Your task to perform on an android device: toggle translation in the chrome app Image 0: 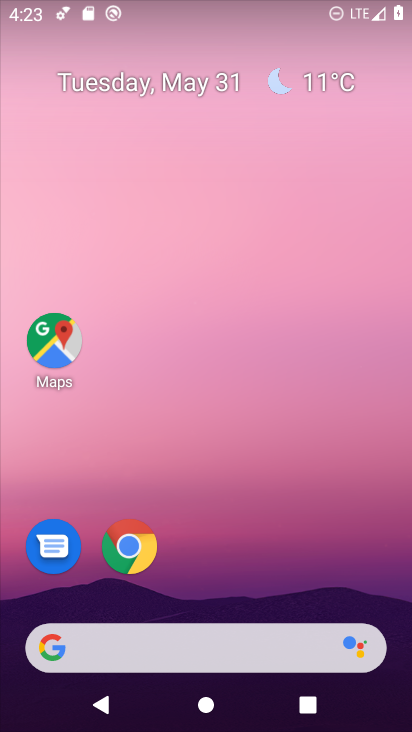
Step 0: click (130, 551)
Your task to perform on an android device: toggle translation in the chrome app Image 1: 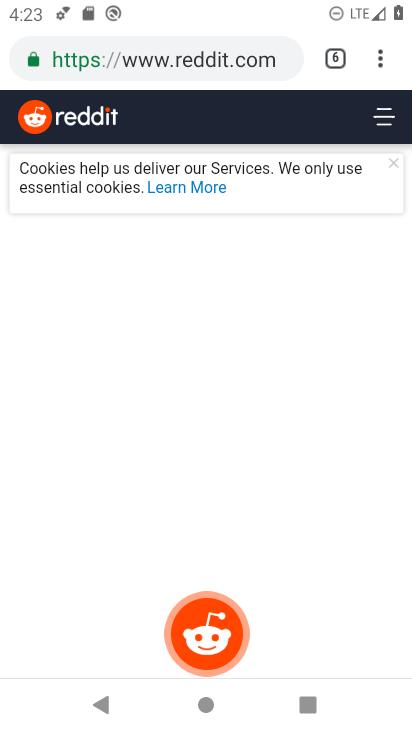
Step 1: click (378, 56)
Your task to perform on an android device: toggle translation in the chrome app Image 2: 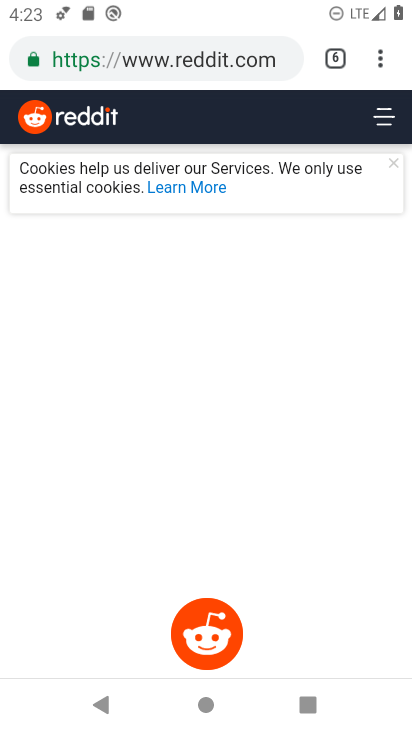
Step 2: click (378, 52)
Your task to perform on an android device: toggle translation in the chrome app Image 3: 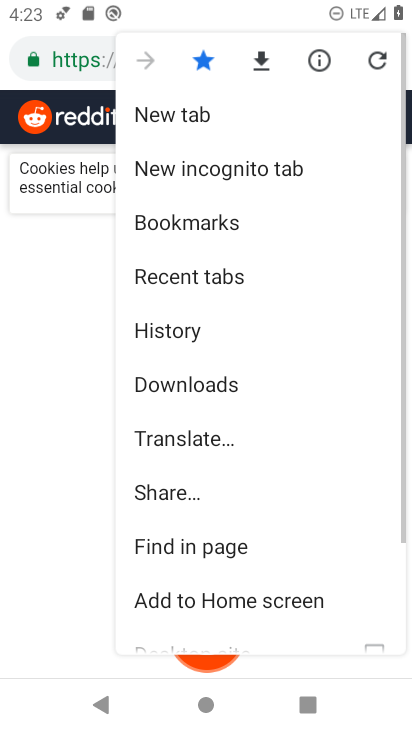
Step 3: drag from (304, 509) to (250, 33)
Your task to perform on an android device: toggle translation in the chrome app Image 4: 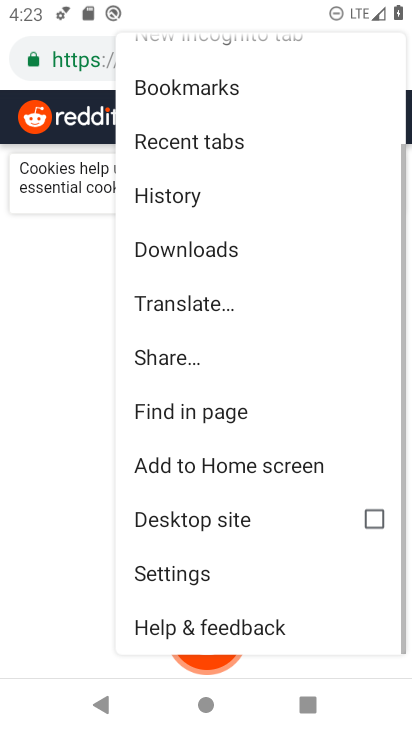
Step 4: click (218, 572)
Your task to perform on an android device: toggle translation in the chrome app Image 5: 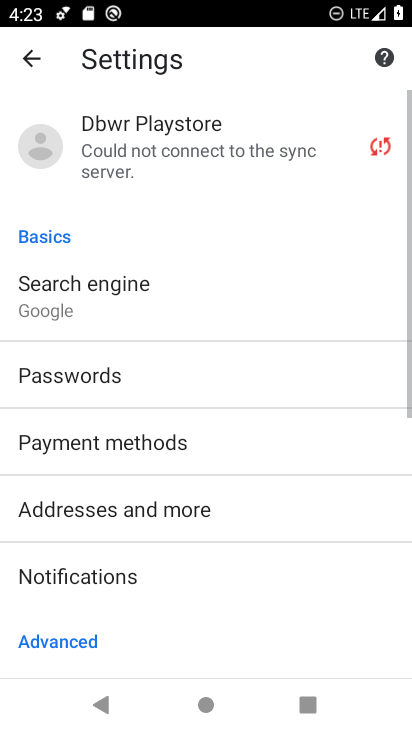
Step 5: drag from (177, 545) to (128, 4)
Your task to perform on an android device: toggle translation in the chrome app Image 6: 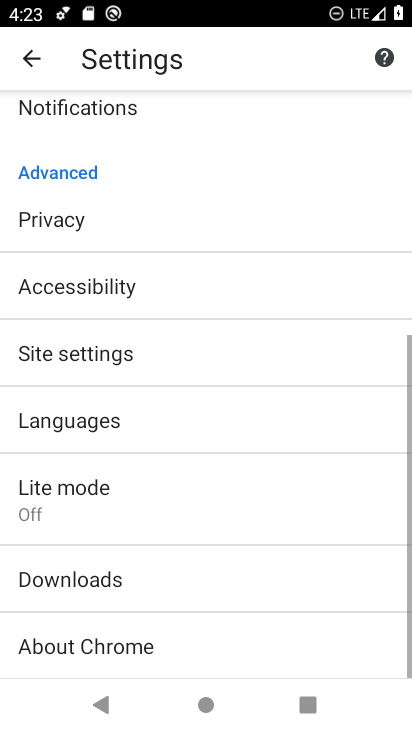
Step 6: click (102, 420)
Your task to perform on an android device: toggle translation in the chrome app Image 7: 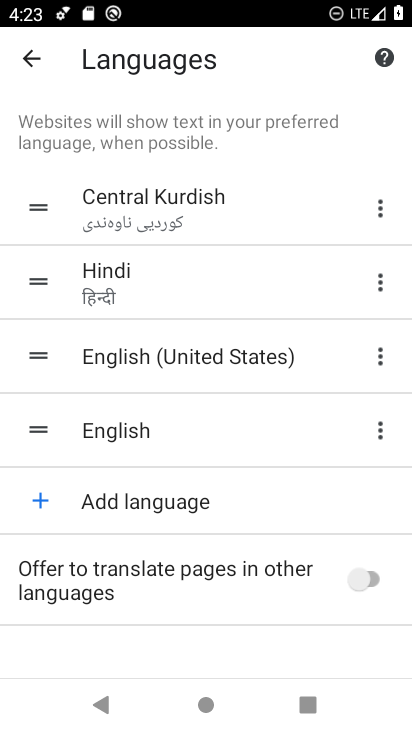
Step 7: click (361, 573)
Your task to perform on an android device: toggle translation in the chrome app Image 8: 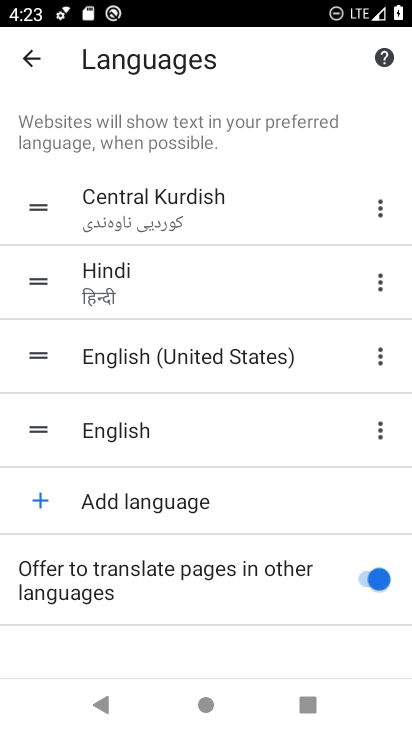
Step 8: task complete